Your task to perform on an android device: manage bookmarks in the chrome app Image 0: 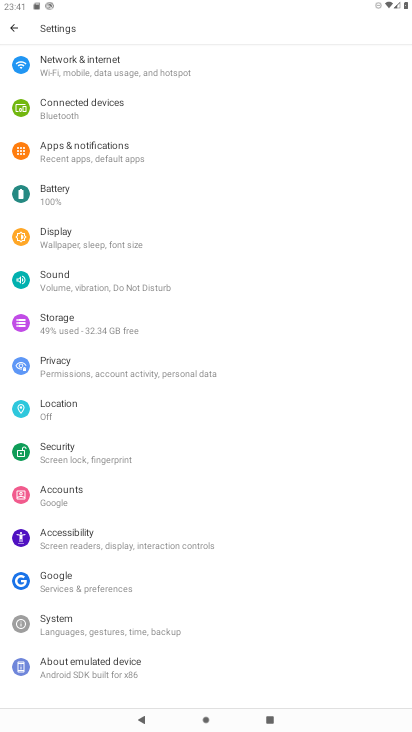
Step 0: press home button
Your task to perform on an android device: manage bookmarks in the chrome app Image 1: 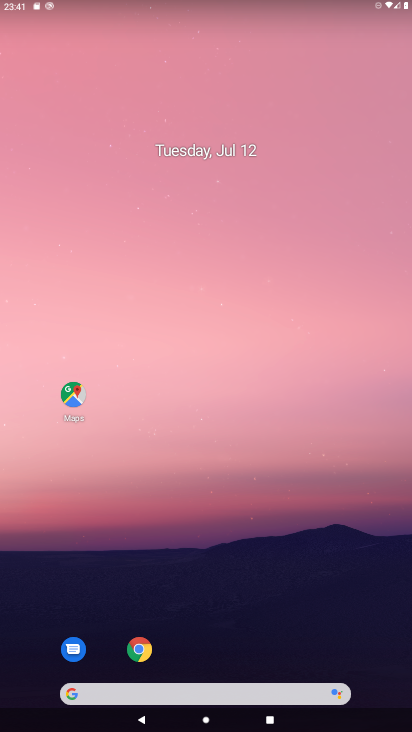
Step 1: click (140, 650)
Your task to perform on an android device: manage bookmarks in the chrome app Image 2: 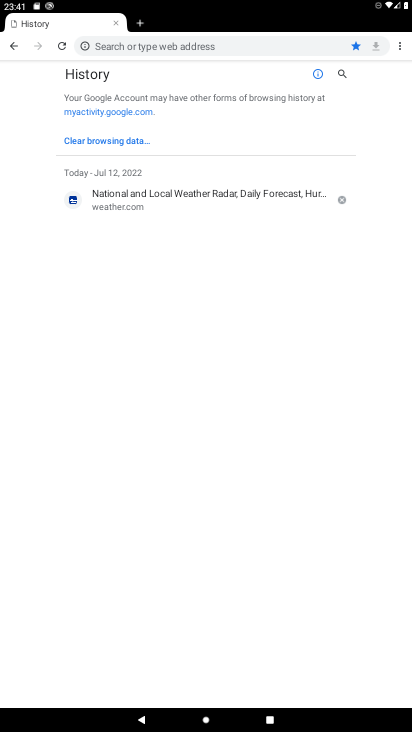
Step 2: click (400, 51)
Your task to perform on an android device: manage bookmarks in the chrome app Image 3: 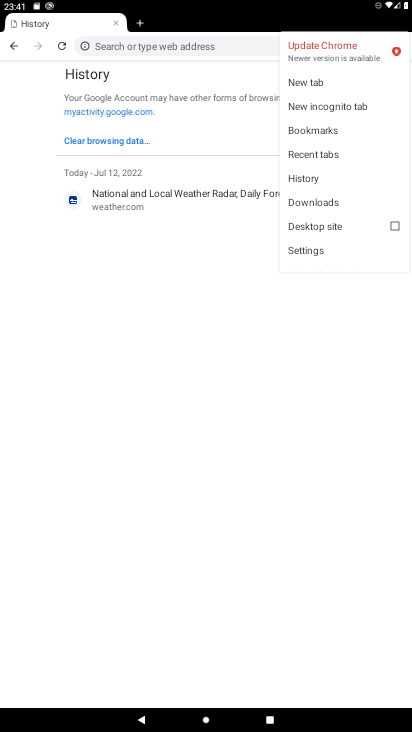
Step 3: click (311, 127)
Your task to perform on an android device: manage bookmarks in the chrome app Image 4: 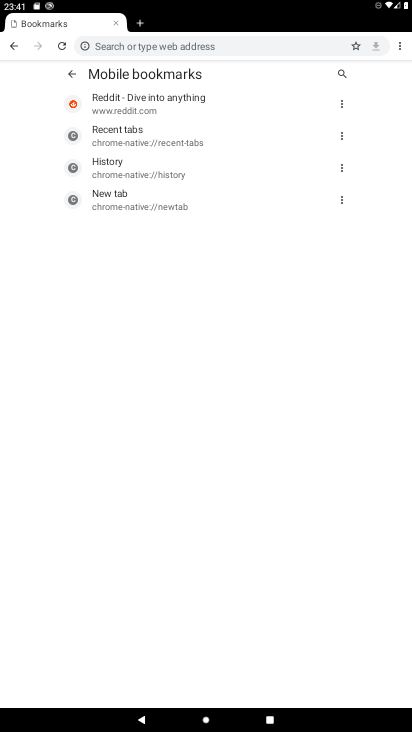
Step 4: click (118, 100)
Your task to perform on an android device: manage bookmarks in the chrome app Image 5: 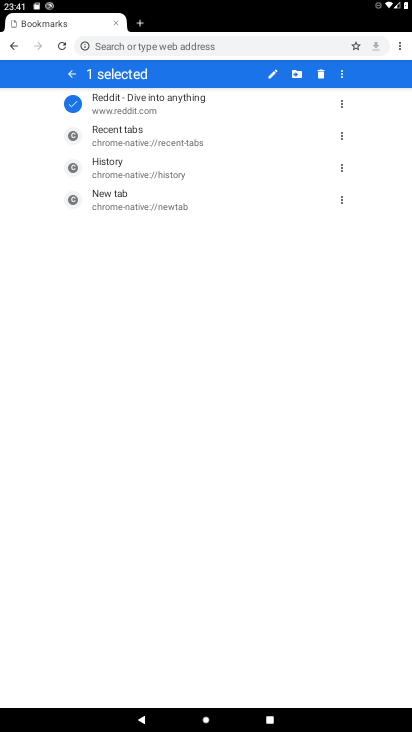
Step 5: click (295, 76)
Your task to perform on an android device: manage bookmarks in the chrome app Image 6: 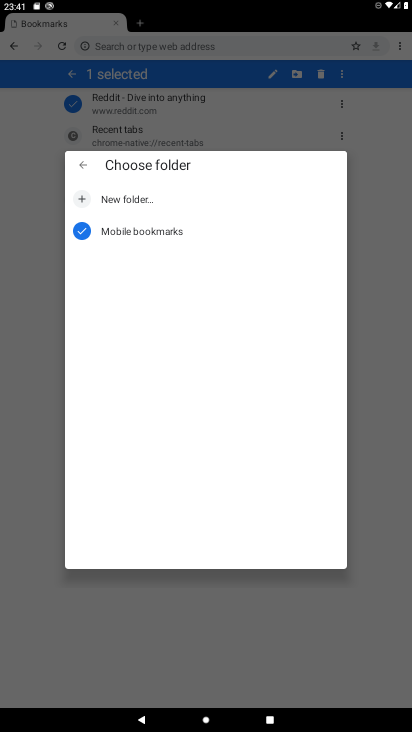
Step 6: click (85, 199)
Your task to perform on an android device: manage bookmarks in the chrome app Image 7: 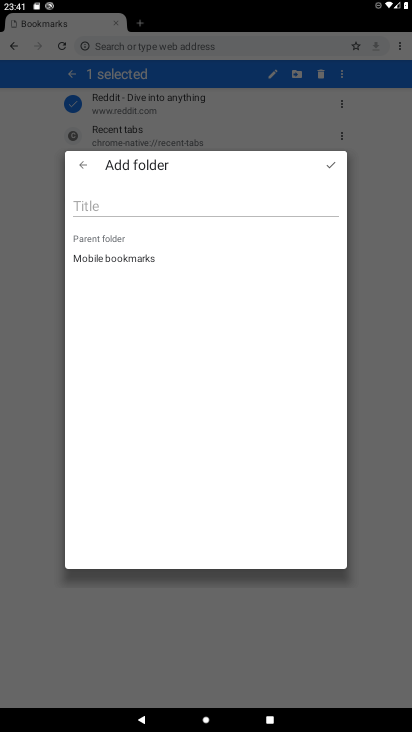
Step 7: click (155, 207)
Your task to perform on an android device: manage bookmarks in the chrome app Image 8: 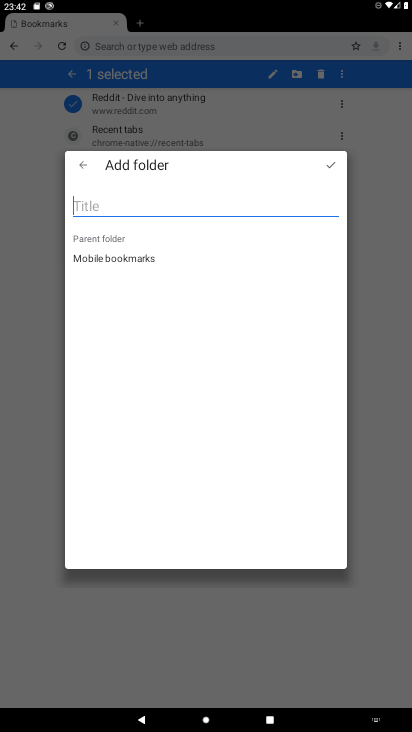
Step 8: type "tvf"
Your task to perform on an android device: manage bookmarks in the chrome app Image 9: 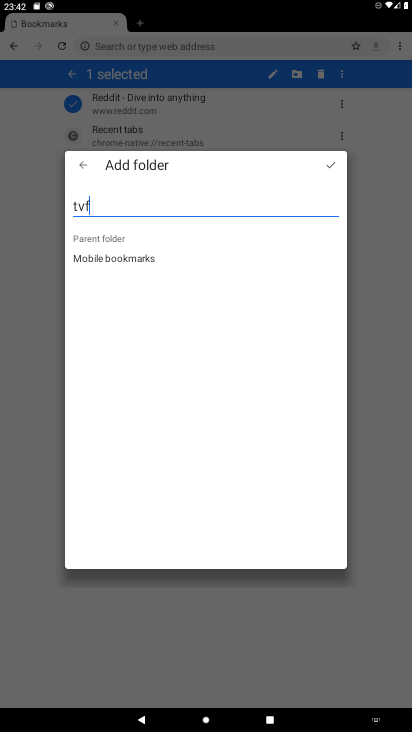
Step 9: click (326, 163)
Your task to perform on an android device: manage bookmarks in the chrome app Image 10: 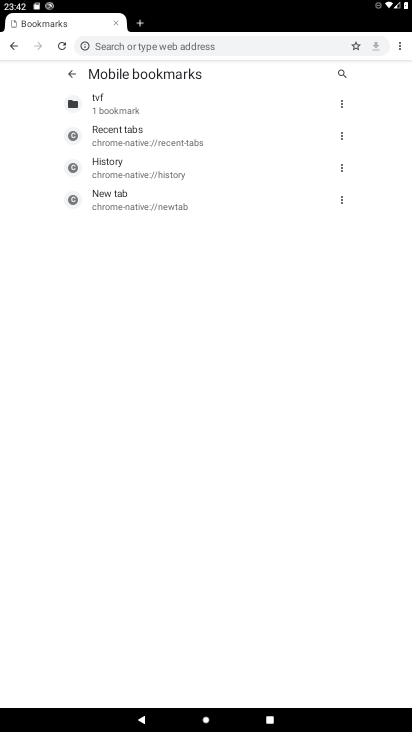
Step 10: task complete